Your task to perform on an android device: turn smart compose on in the gmail app Image 0: 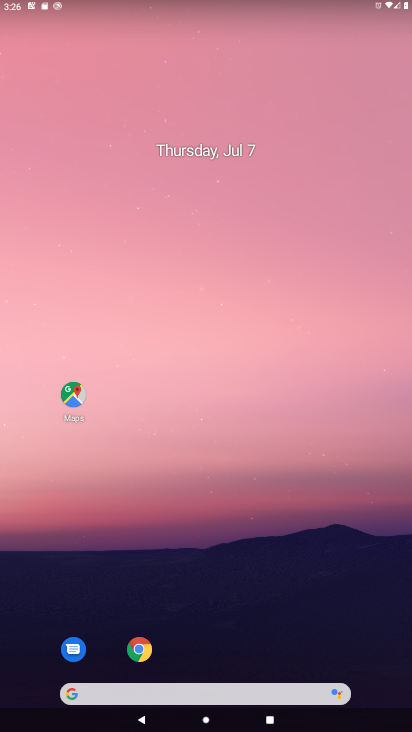
Step 0: drag from (211, 655) to (217, 63)
Your task to perform on an android device: turn smart compose on in the gmail app Image 1: 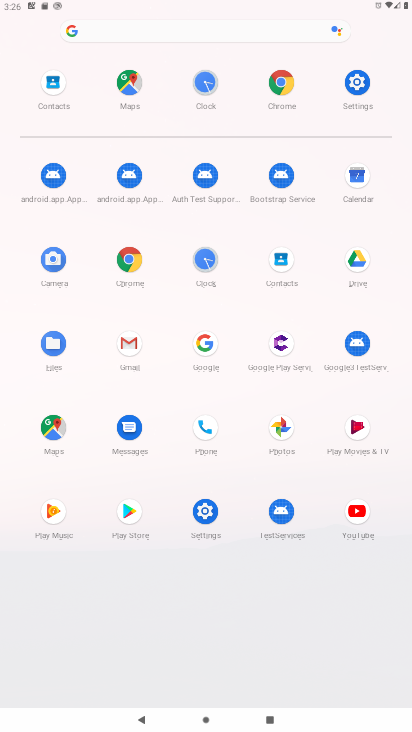
Step 1: click (127, 341)
Your task to perform on an android device: turn smart compose on in the gmail app Image 2: 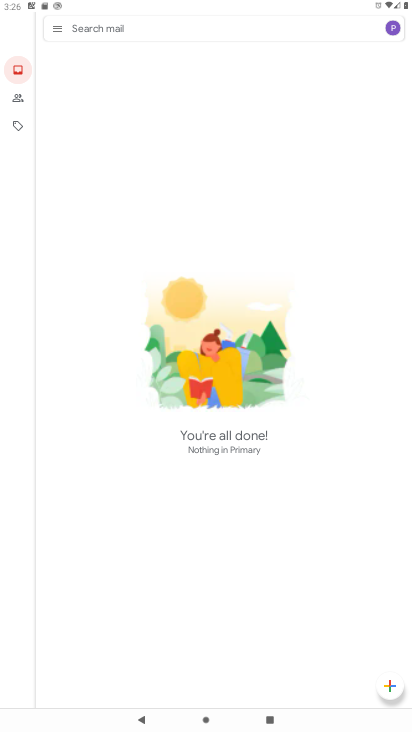
Step 2: click (59, 25)
Your task to perform on an android device: turn smart compose on in the gmail app Image 3: 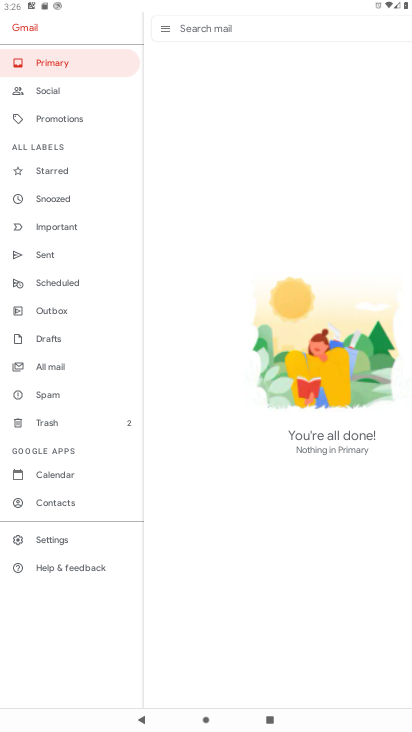
Step 3: click (60, 537)
Your task to perform on an android device: turn smart compose on in the gmail app Image 4: 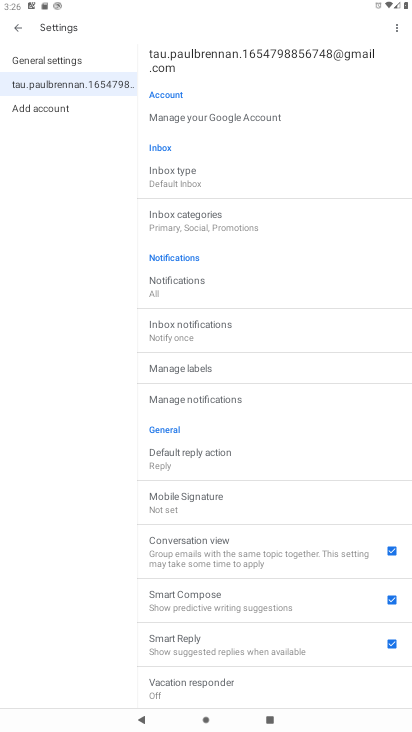
Step 4: task complete